Your task to perform on an android device: toggle notification dots Image 0: 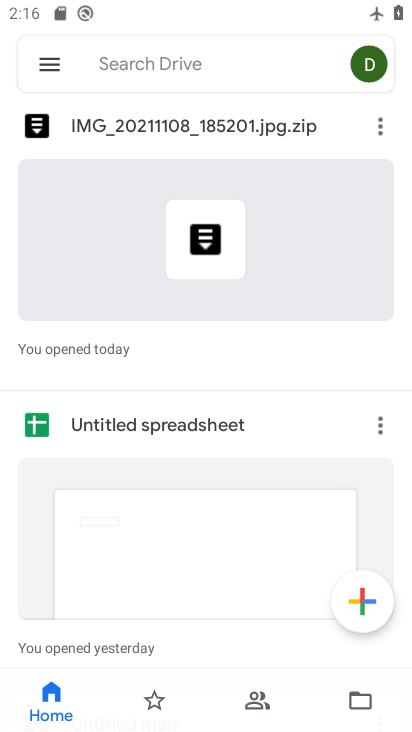
Step 0: press home button
Your task to perform on an android device: toggle notification dots Image 1: 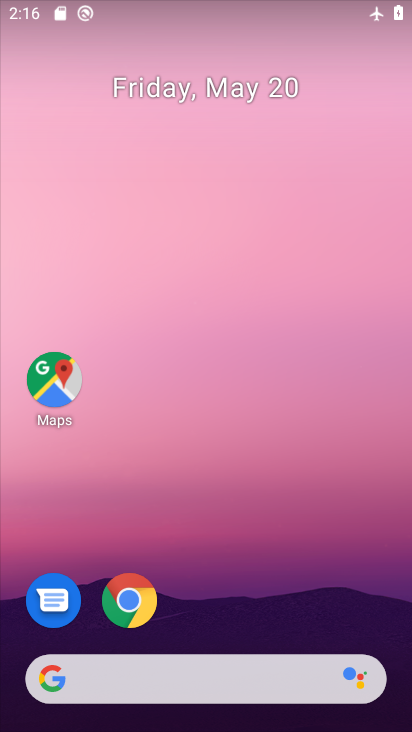
Step 1: drag from (279, 546) to (174, 8)
Your task to perform on an android device: toggle notification dots Image 2: 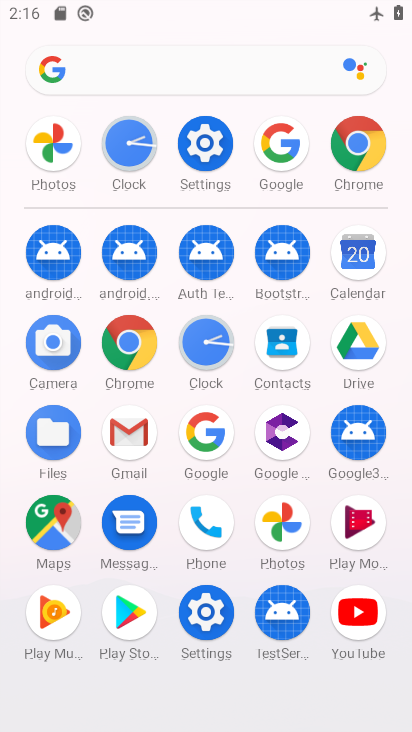
Step 2: click (202, 144)
Your task to perform on an android device: toggle notification dots Image 3: 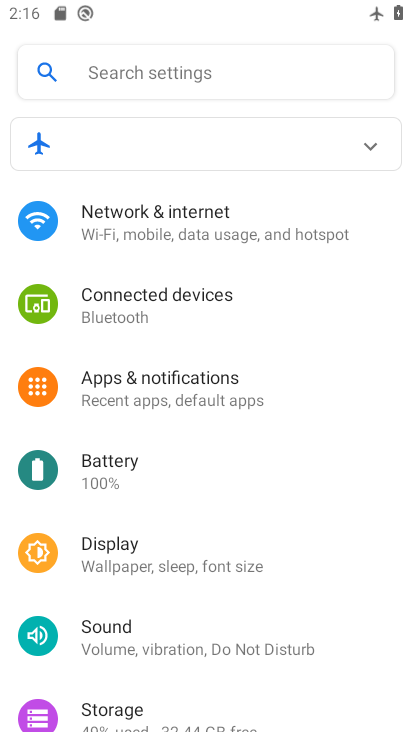
Step 3: click (189, 392)
Your task to perform on an android device: toggle notification dots Image 4: 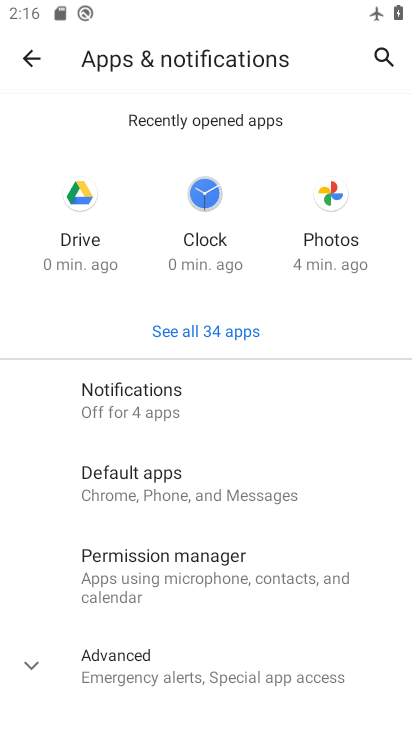
Step 4: click (199, 412)
Your task to perform on an android device: toggle notification dots Image 5: 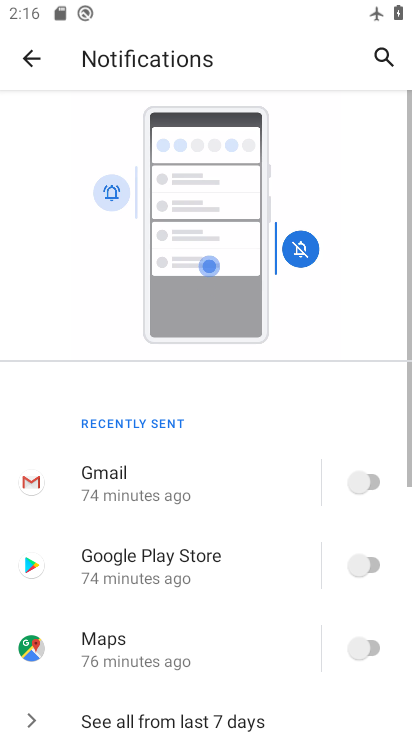
Step 5: drag from (287, 641) to (253, 242)
Your task to perform on an android device: toggle notification dots Image 6: 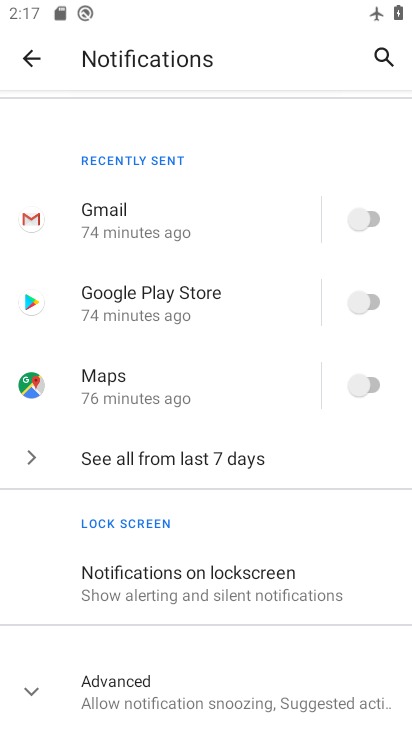
Step 6: click (218, 677)
Your task to perform on an android device: toggle notification dots Image 7: 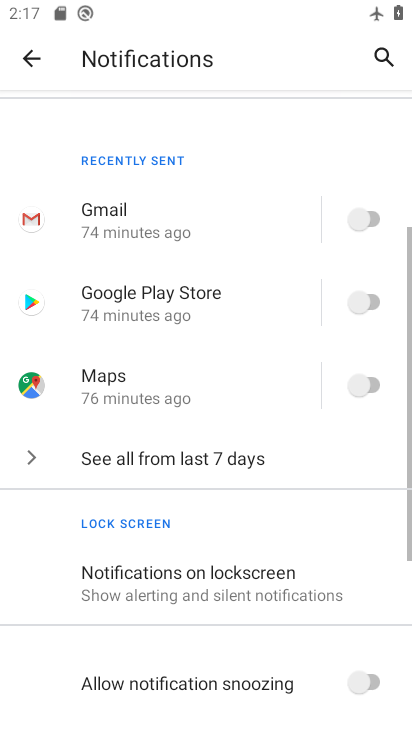
Step 7: drag from (278, 675) to (206, 222)
Your task to perform on an android device: toggle notification dots Image 8: 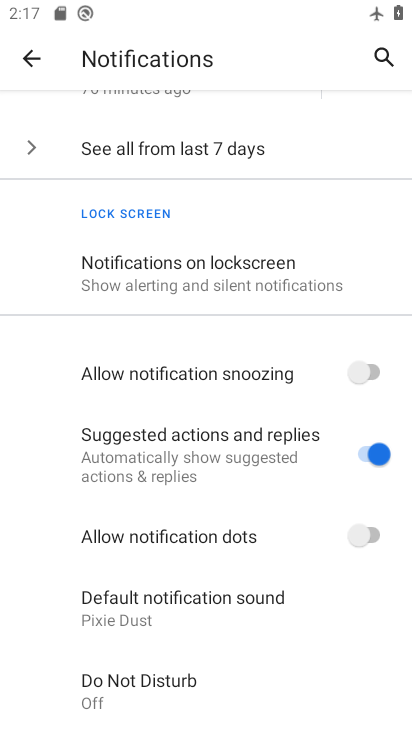
Step 8: click (360, 532)
Your task to perform on an android device: toggle notification dots Image 9: 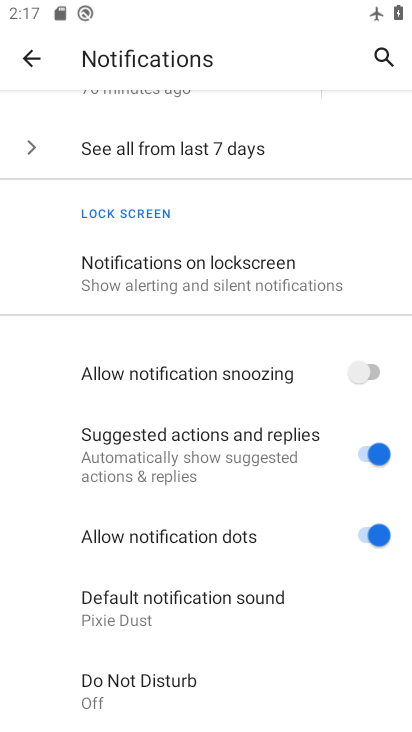
Step 9: task complete